Your task to perform on an android device: search for starred emails in the gmail app Image 0: 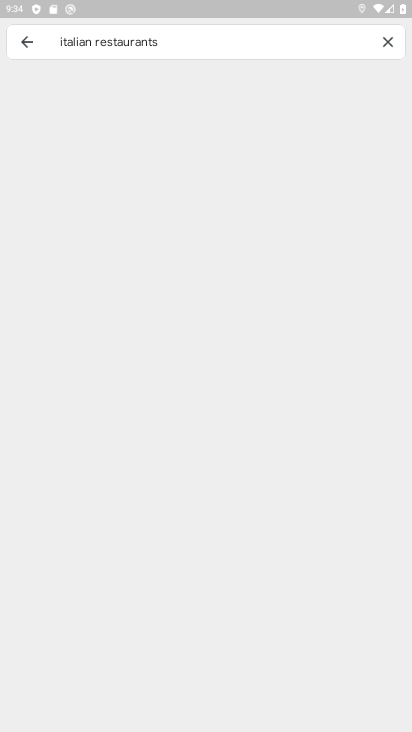
Step 0: press home button
Your task to perform on an android device: search for starred emails in the gmail app Image 1: 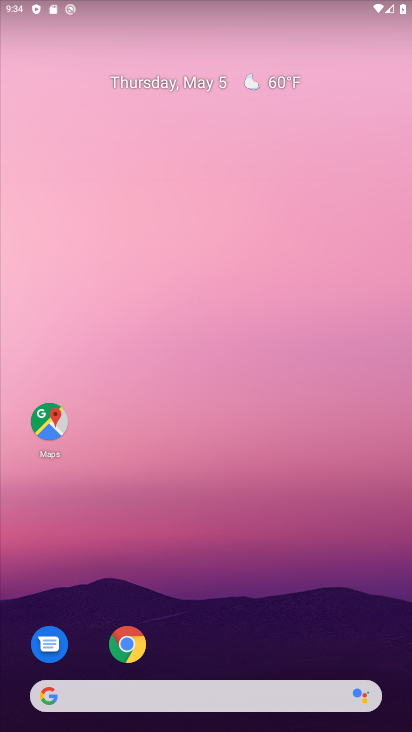
Step 1: drag from (354, 631) to (336, 143)
Your task to perform on an android device: search for starred emails in the gmail app Image 2: 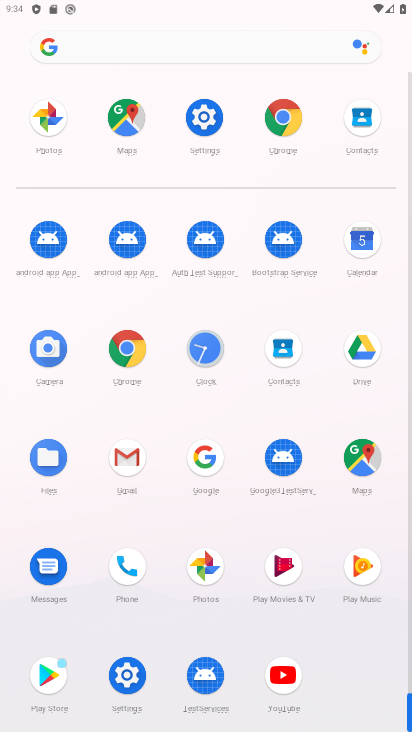
Step 2: click (120, 453)
Your task to perform on an android device: search for starred emails in the gmail app Image 3: 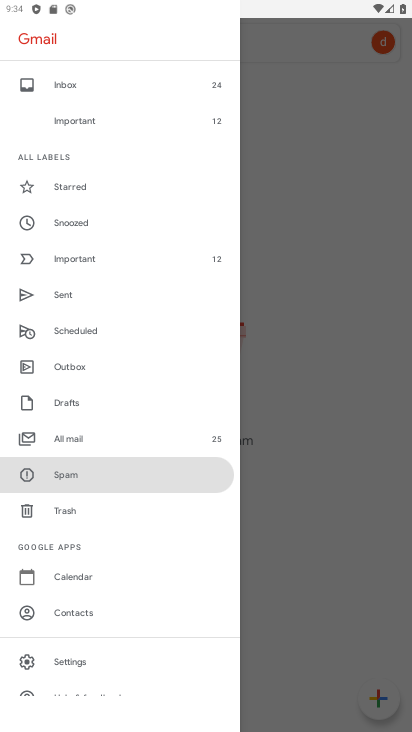
Step 3: click (106, 193)
Your task to perform on an android device: search for starred emails in the gmail app Image 4: 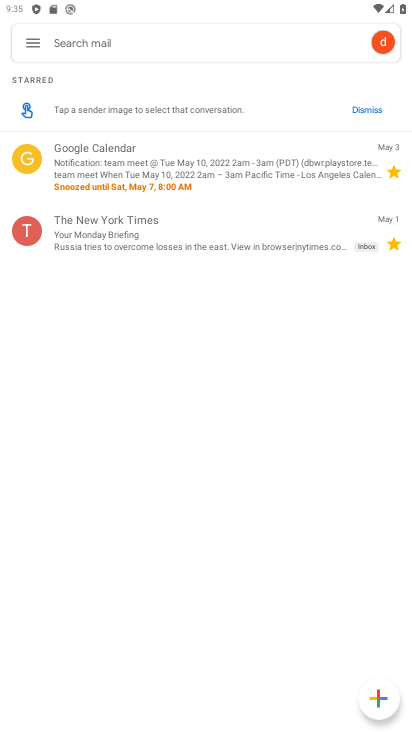
Step 4: task complete